Your task to perform on an android device: turn off location Image 0: 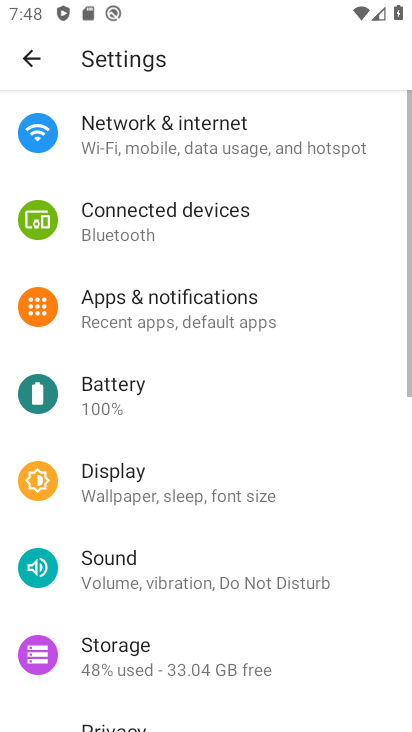
Step 0: click (126, 600)
Your task to perform on an android device: turn off location Image 1: 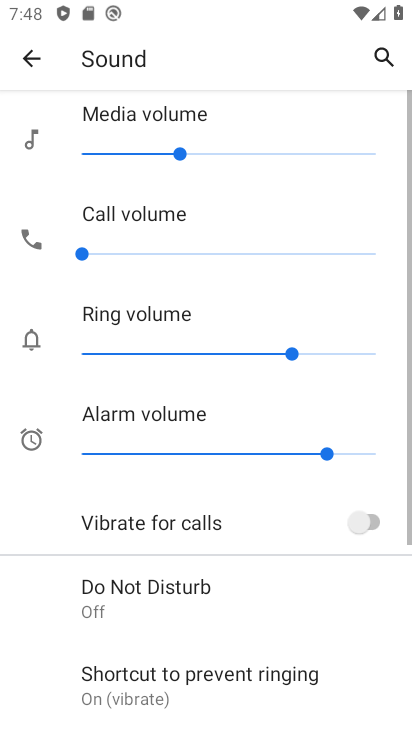
Step 1: press home button
Your task to perform on an android device: turn off location Image 2: 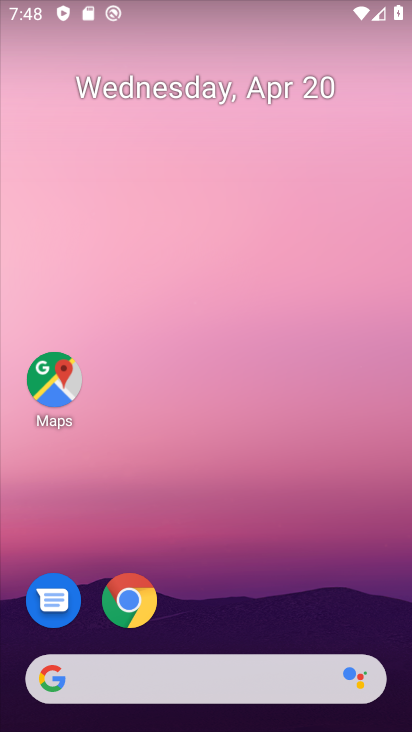
Step 2: drag from (208, 729) to (201, 220)
Your task to perform on an android device: turn off location Image 3: 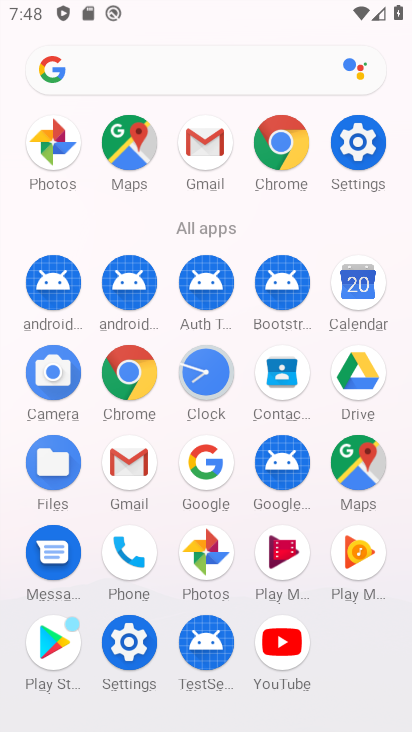
Step 3: click (360, 140)
Your task to perform on an android device: turn off location Image 4: 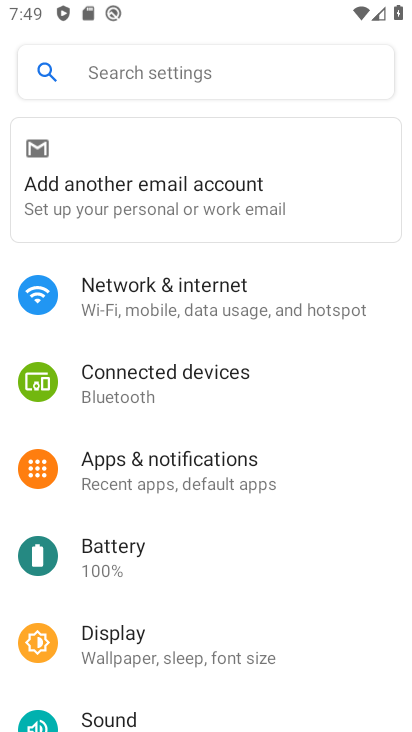
Step 4: drag from (165, 601) to (165, 271)
Your task to perform on an android device: turn off location Image 5: 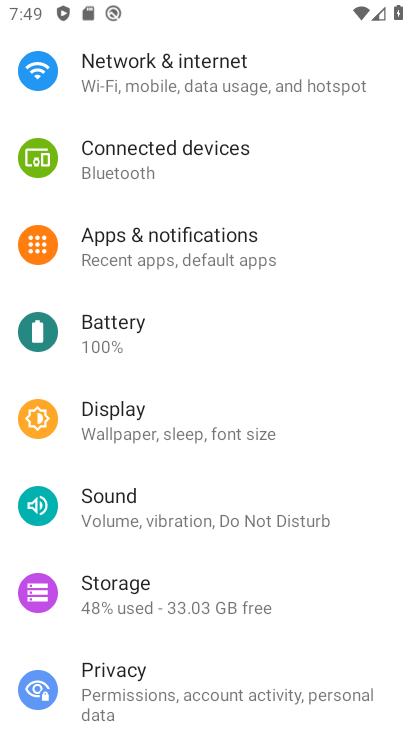
Step 5: drag from (141, 637) to (146, 232)
Your task to perform on an android device: turn off location Image 6: 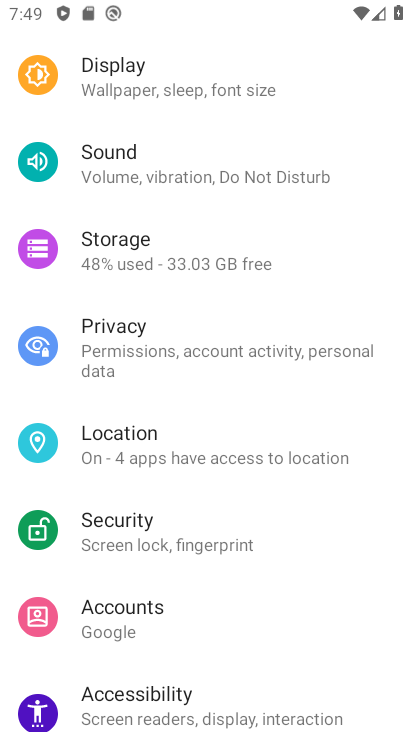
Step 6: click (146, 446)
Your task to perform on an android device: turn off location Image 7: 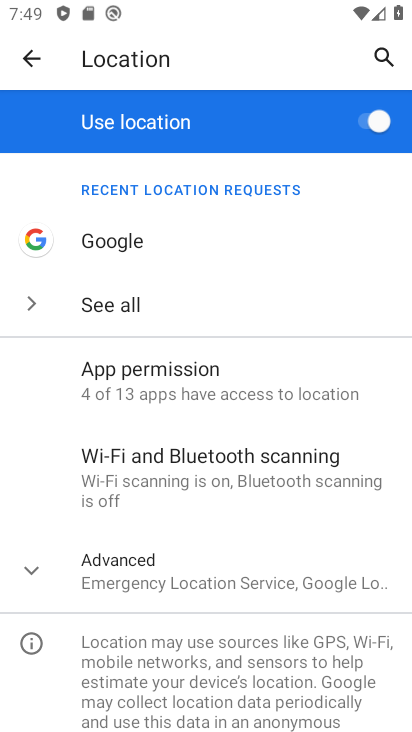
Step 7: click (364, 119)
Your task to perform on an android device: turn off location Image 8: 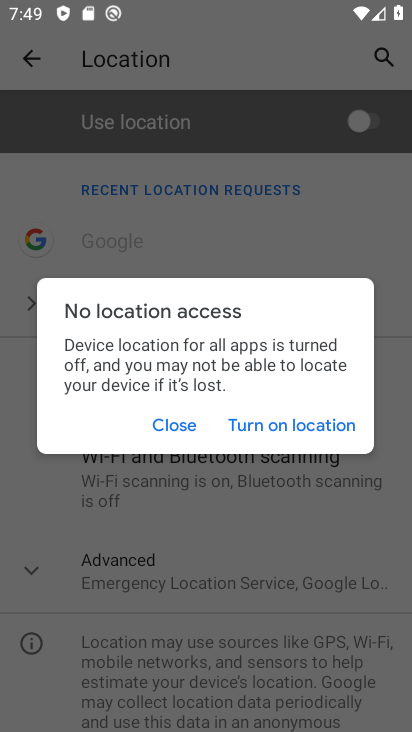
Step 8: click (174, 423)
Your task to perform on an android device: turn off location Image 9: 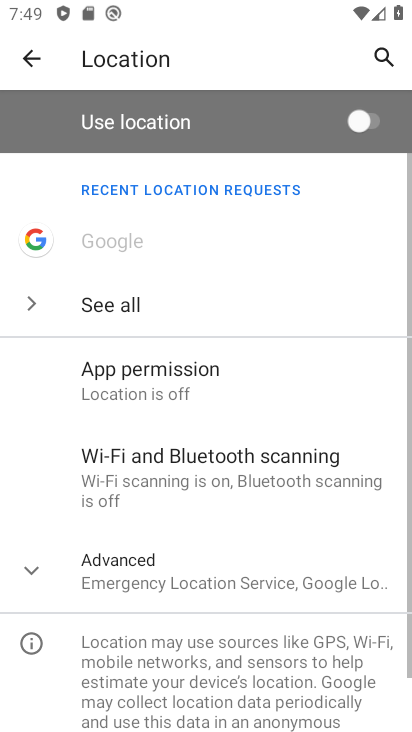
Step 9: task complete